Your task to perform on an android device: turn on translation in the chrome app Image 0: 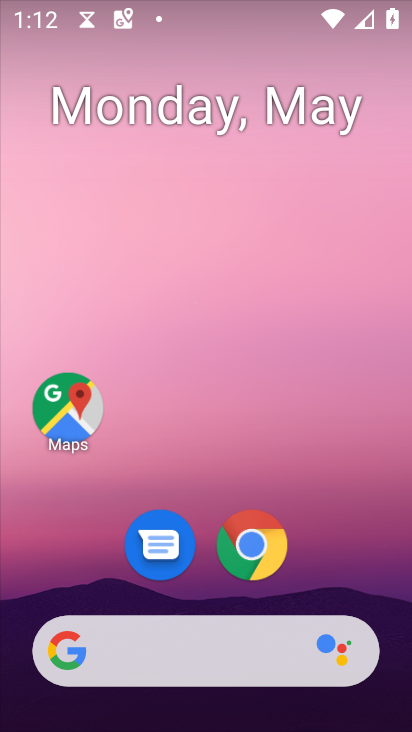
Step 0: drag from (353, 582) to (381, 256)
Your task to perform on an android device: turn on translation in the chrome app Image 1: 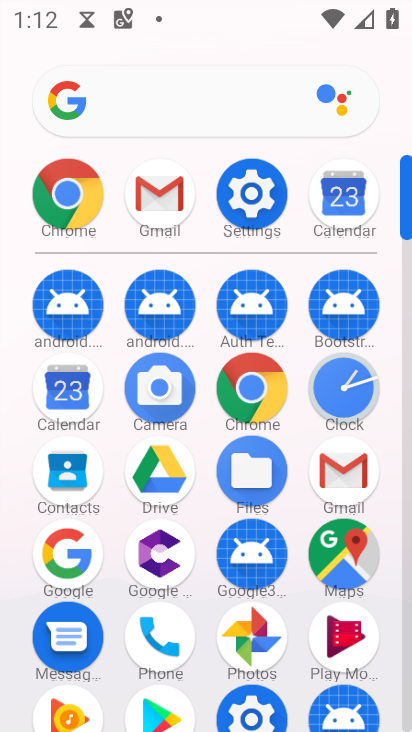
Step 1: click (245, 382)
Your task to perform on an android device: turn on translation in the chrome app Image 2: 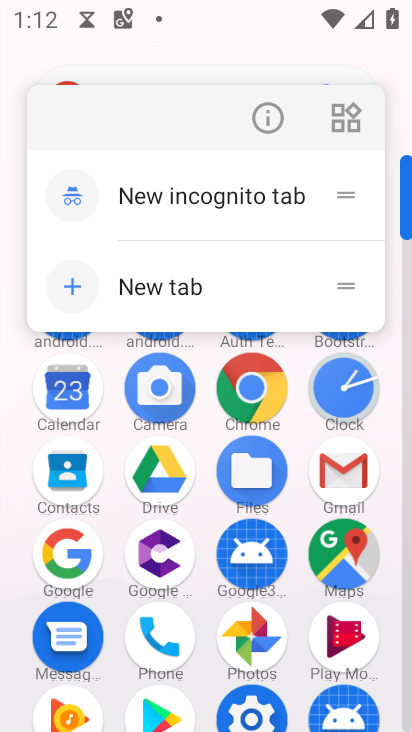
Step 2: click (245, 382)
Your task to perform on an android device: turn on translation in the chrome app Image 3: 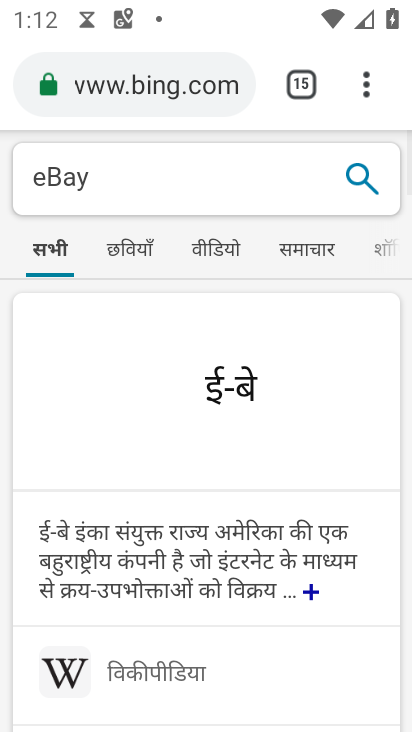
Step 3: click (373, 82)
Your task to perform on an android device: turn on translation in the chrome app Image 4: 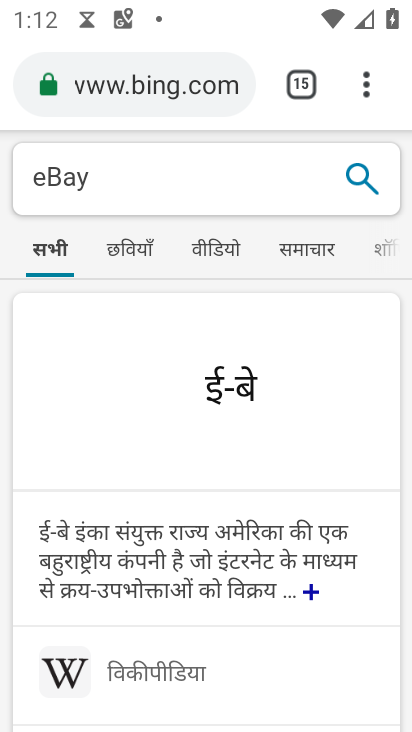
Step 4: click (369, 84)
Your task to perform on an android device: turn on translation in the chrome app Image 5: 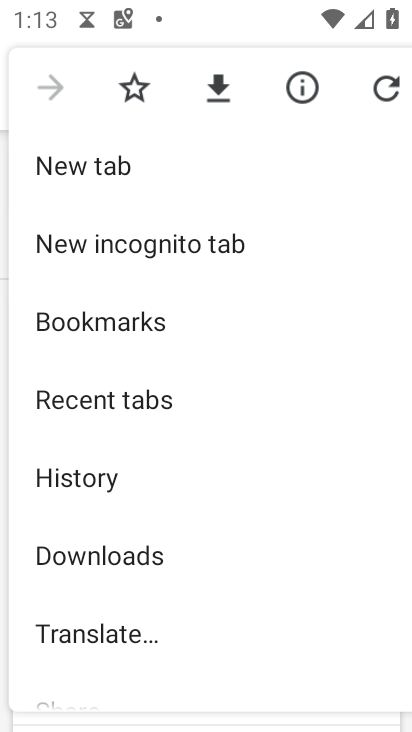
Step 5: drag from (235, 606) to (302, 174)
Your task to perform on an android device: turn on translation in the chrome app Image 6: 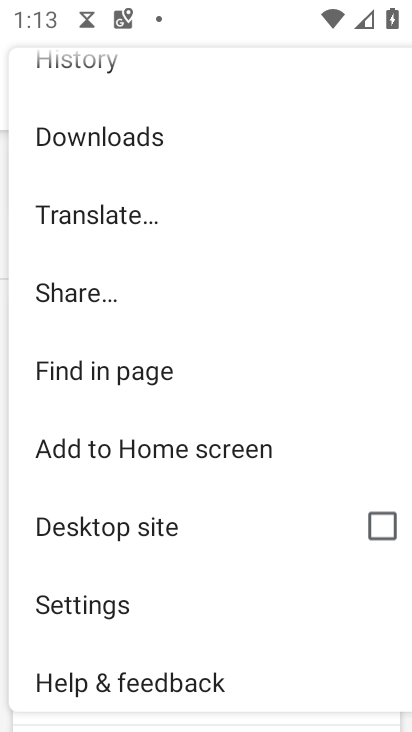
Step 6: click (97, 614)
Your task to perform on an android device: turn on translation in the chrome app Image 7: 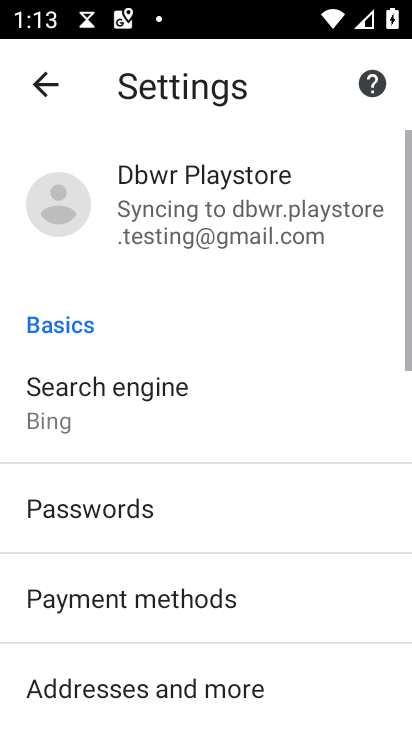
Step 7: drag from (199, 470) to (259, 325)
Your task to perform on an android device: turn on translation in the chrome app Image 8: 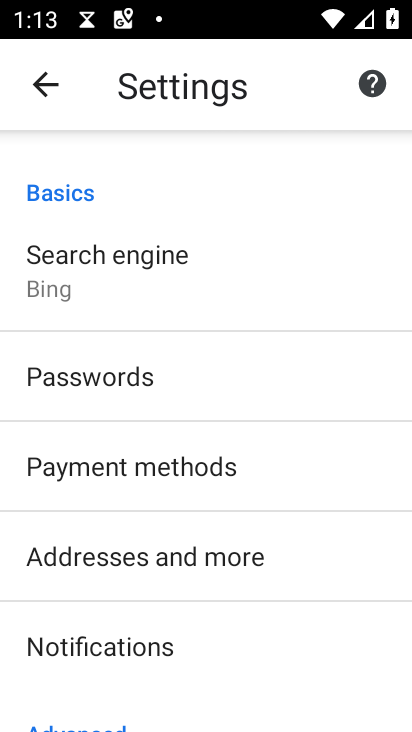
Step 8: drag from (197, 673) to (295, 280)
Your task to perform on an android device: turn on translation in the chrome app Image 9: 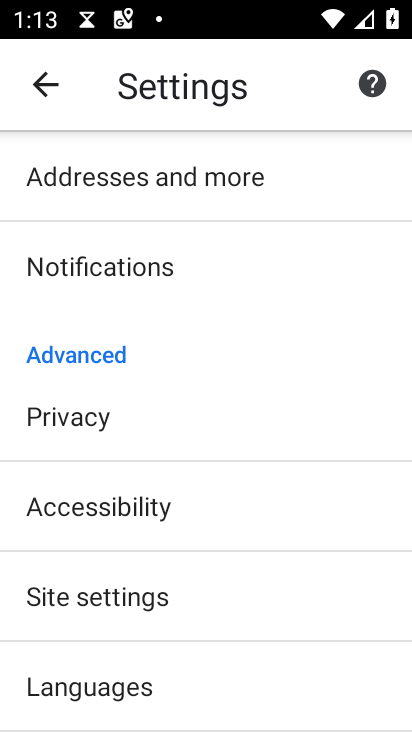
Step 9: drag from (190, 643) to (248, 400)
Your task to perform on an android device: turn on translation in the chrome app Image 10: 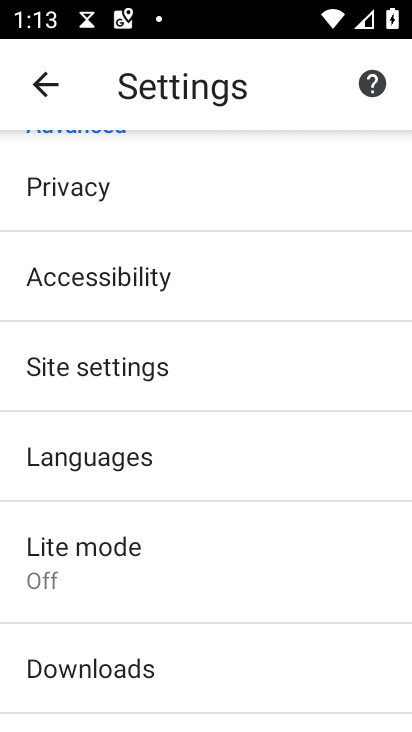
Step 10: click (116, 452)
Your task to perform on an android device: turn on translation in the chrome app Image 11: 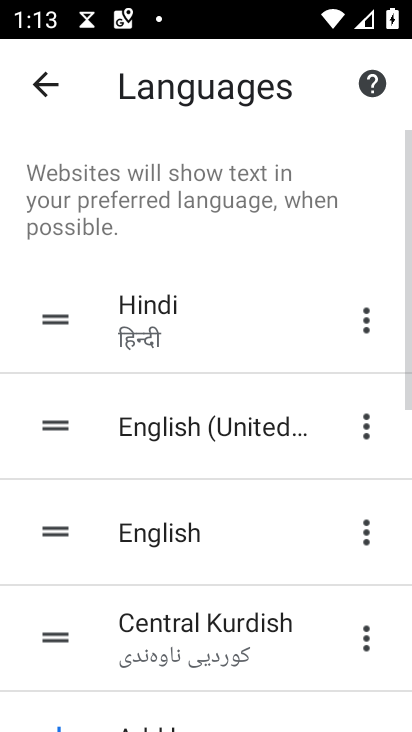
Step 11: drag from (244, 662) to (257, 317)
Your task to perform on an android device: turn on translation in the chrome app Image 12: 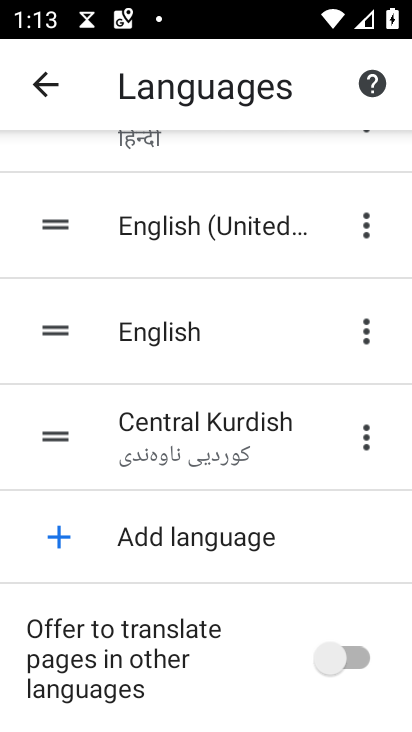
Step 12: click (316, 649)
Your task to perform on an android device: turn on translation in the chrome app Image 13: 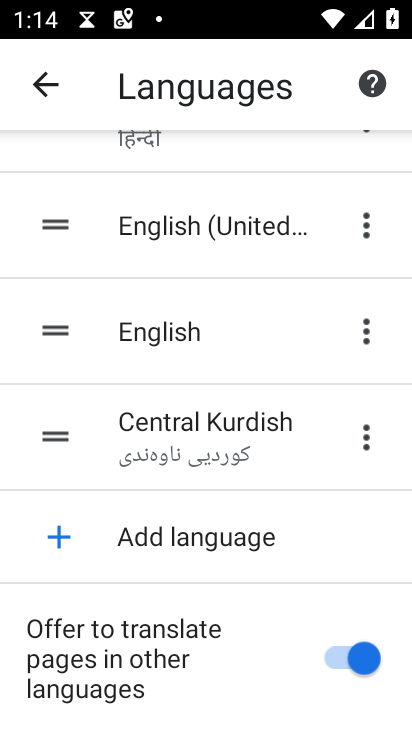
Step 13: task complete